Your task to perform on an android device: See recent photos Image 0: 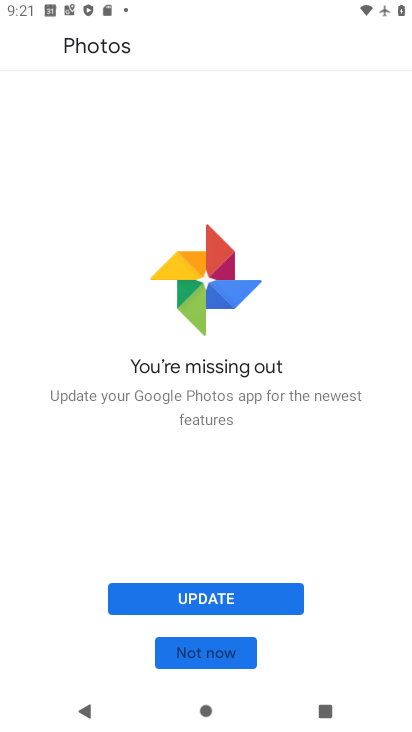
Step 0: press home button
Your task to perform on an android device: See recent photos Image 1: 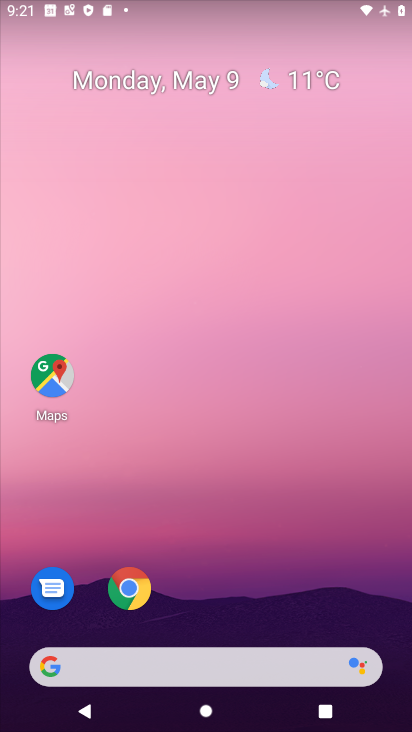
Step 1: drag from (245, 661) to (380, 183)
Your task to perform on an android device: See recent photos Image 2: 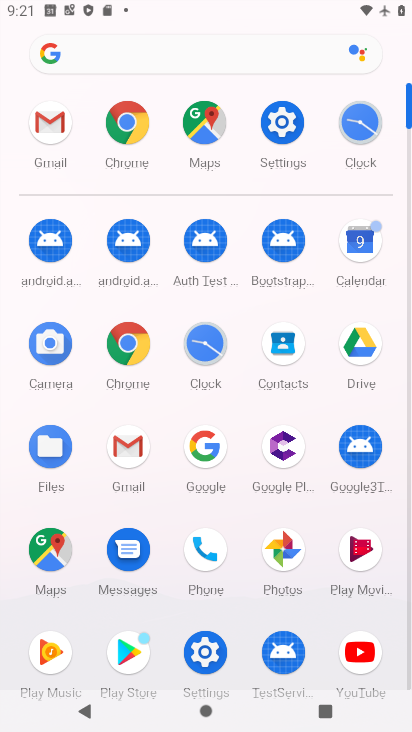
Step 2: click (283, 544)
Your task to perform on an android device: See recent photos Image 3: 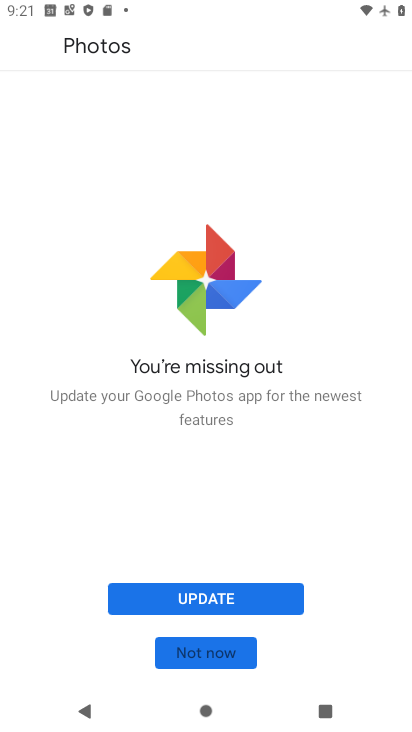
Step 3: click (217, 603)
Your task to perform on an android device: See recent photos Image 4: 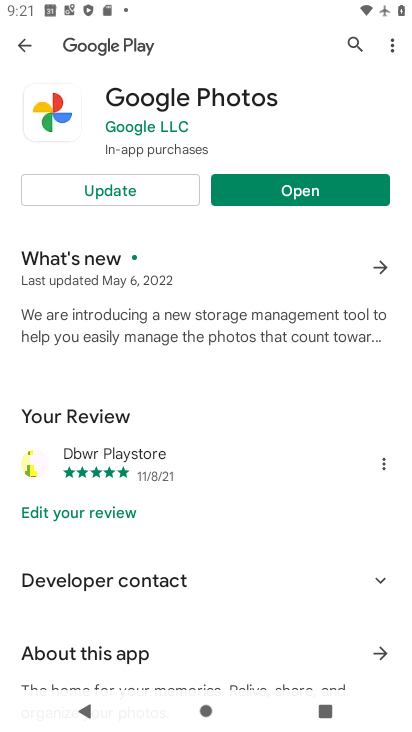
Step 4: click (287, 187)
Your task to perform on an android device: See recent photos Image 5: 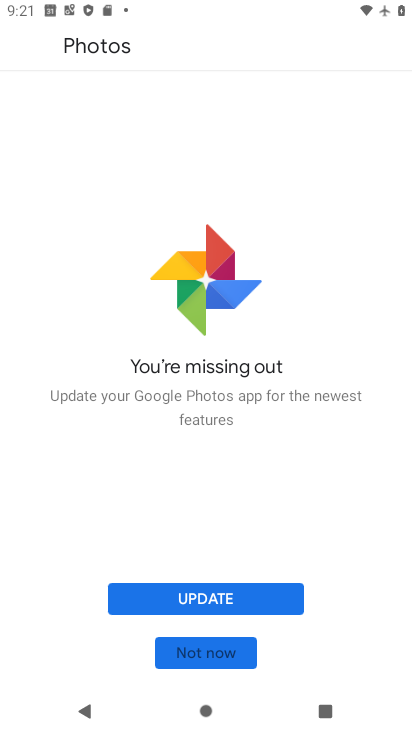
Step 5: click (219, 597)
Your task to perform on an android device: See recent photos Image 6: 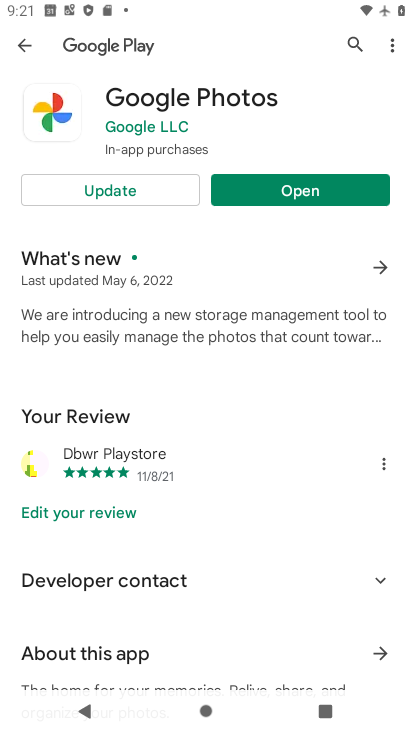
Step 6: click (167, 187)
Your task to perform on an android device: See recent photos Image 7: 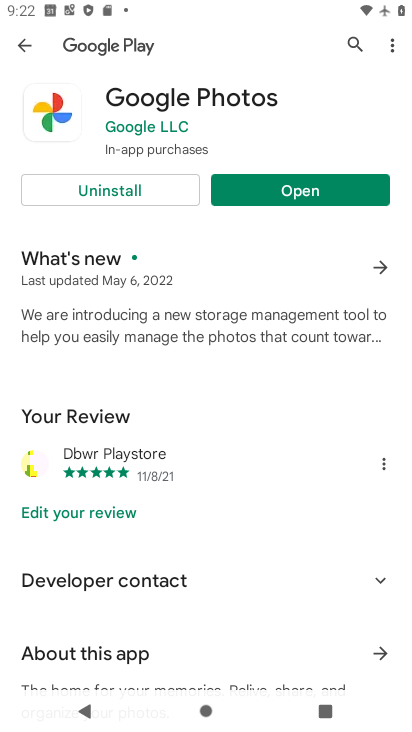
Step 7: click (314, 199)
Your task to perform on an android device: See recent photos Image 8: 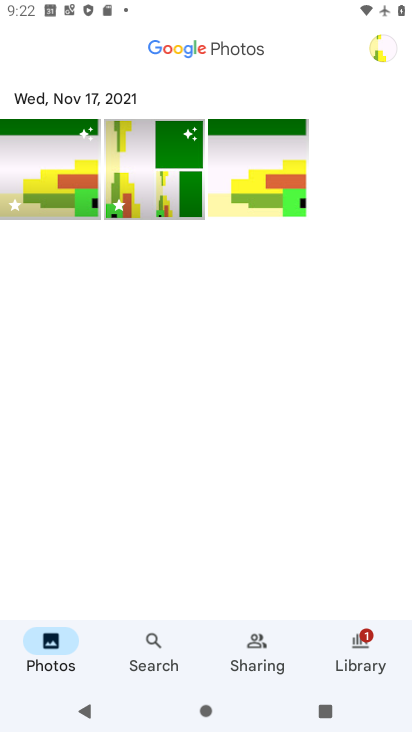
Step 8: task complete